Your task to perform on an android device: Do I have any events today? Image 0: 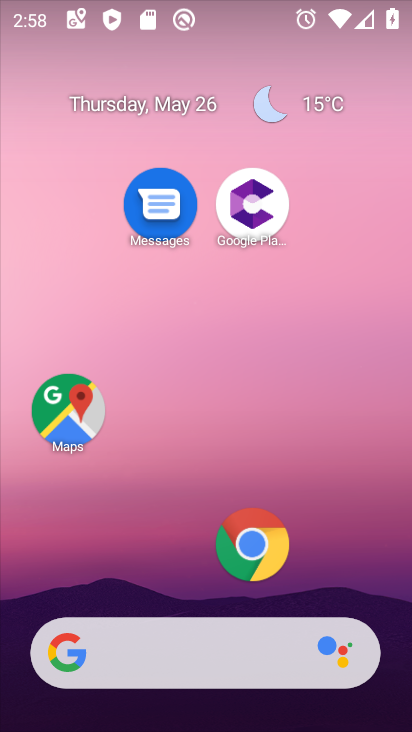
Step 0: click (168, 97)
Your task to perform on an android device: Do I have any events today? Image 1: 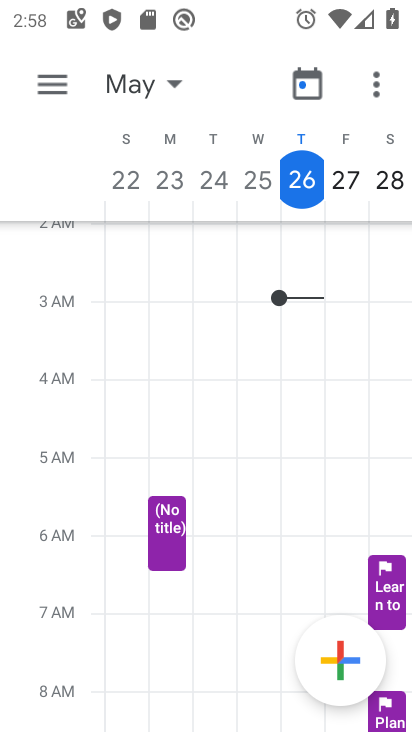
Step 1: task complete